Your task to perform on an android device: Open sound settings Image 0: 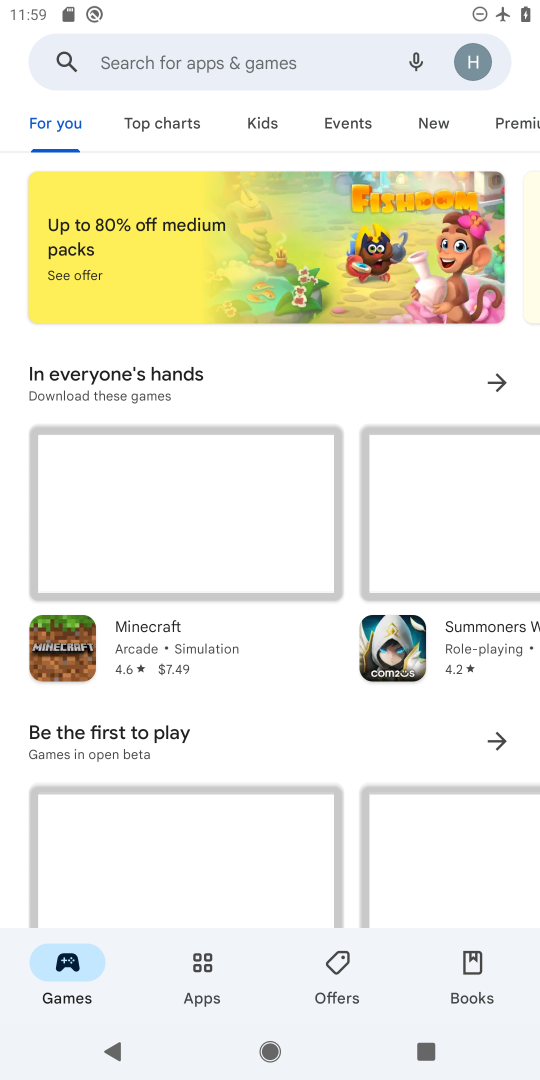
Step 0: press home button
Your task to perform on an android device: Open sound settings Image 1: 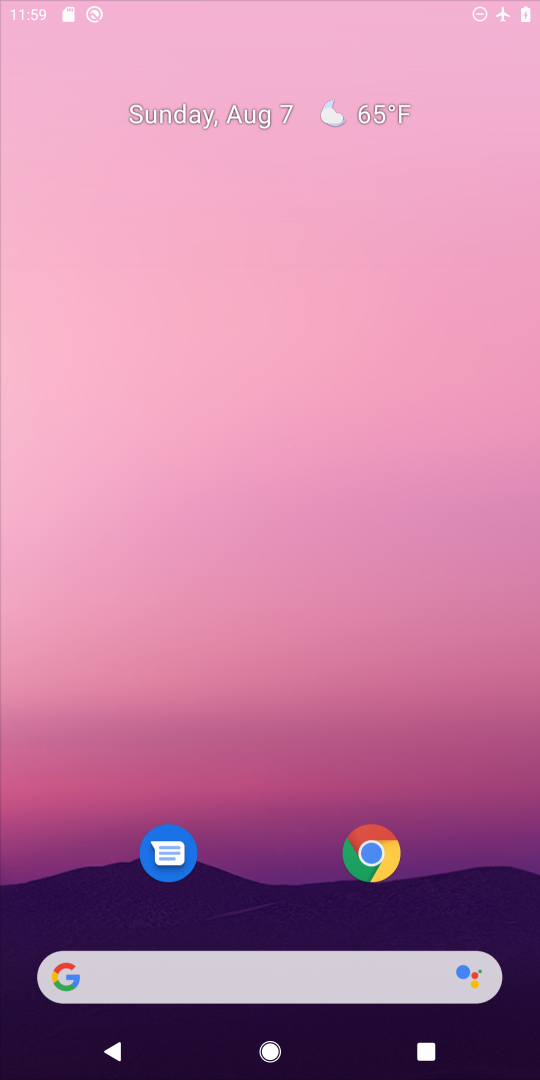
Step 1: drag from (238, 977) to (257, 255)
Your task to perform on an android device: Open sound settings Image 2: 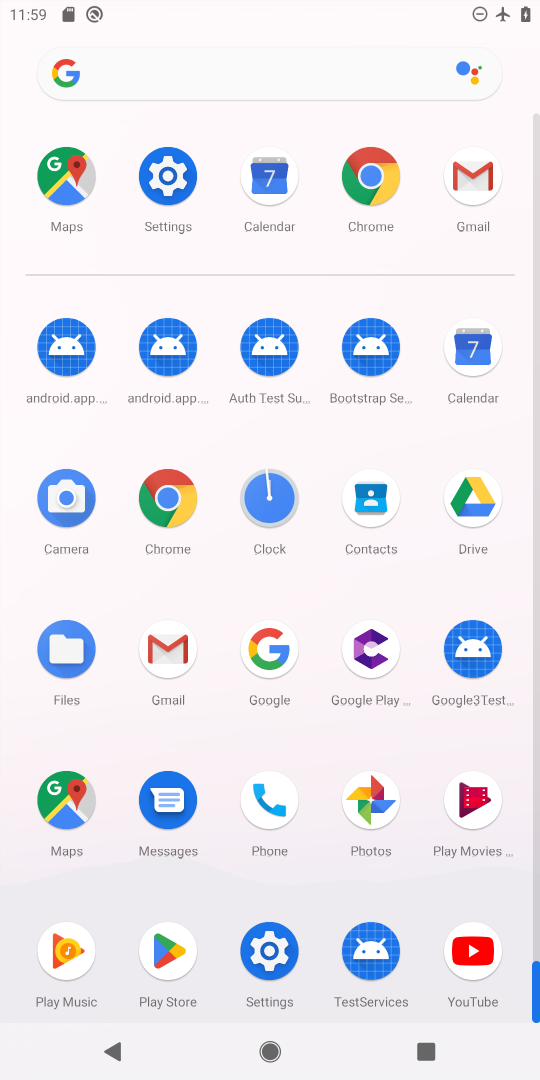
Step 2: click (268, 946)
Your task to perform on an android device: Open sound settings Image 3: 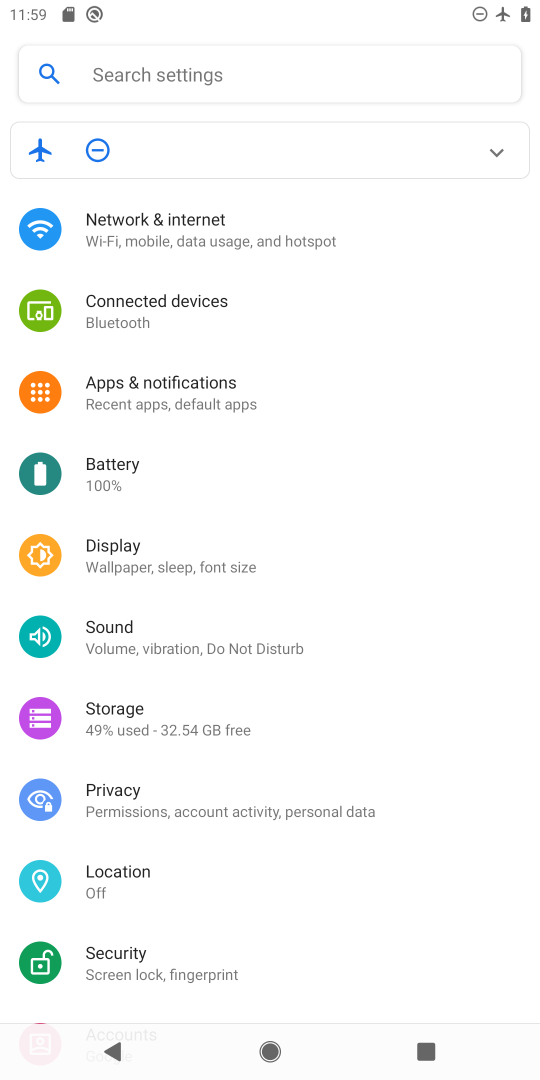
Step 3: click (144, 638)
Your task to perform on an android device: Open sound settings Image 4: 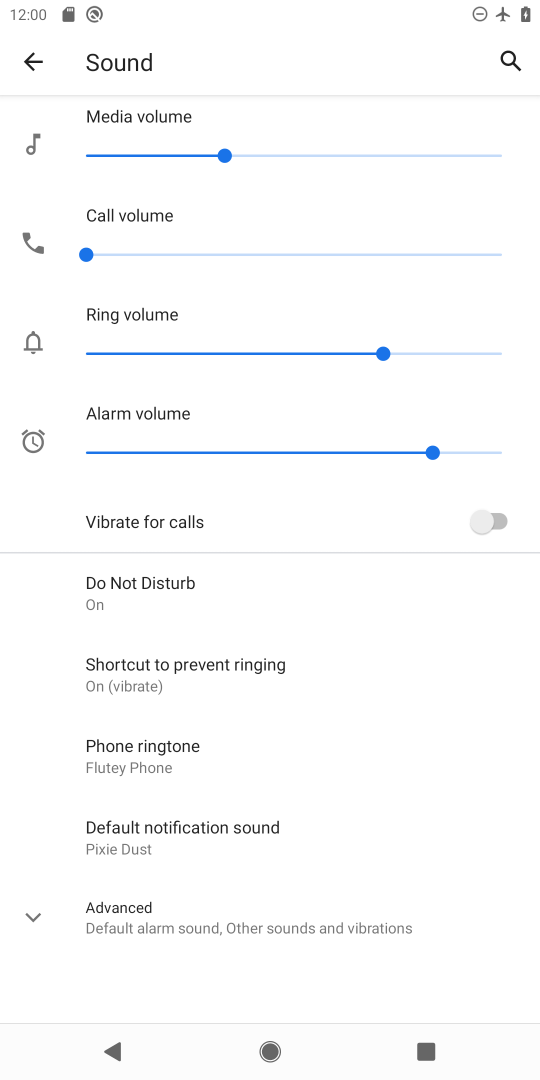
Step 4: task complete